Your task to perform on an android device: turn notification dots on Image 0: 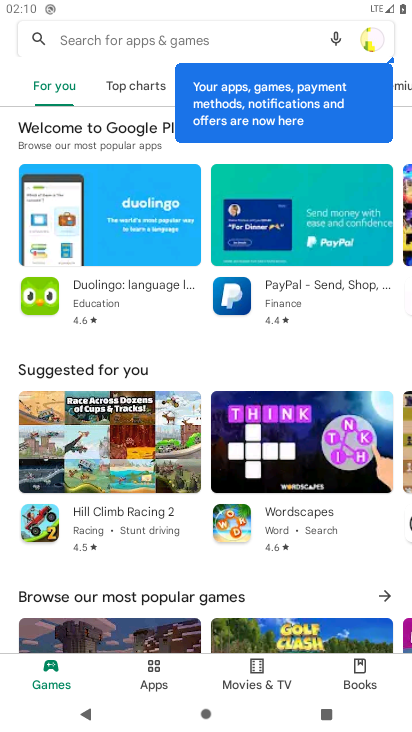
Step 0: press home button
Your task to perform on an android device: turn notification dots on Image 1: 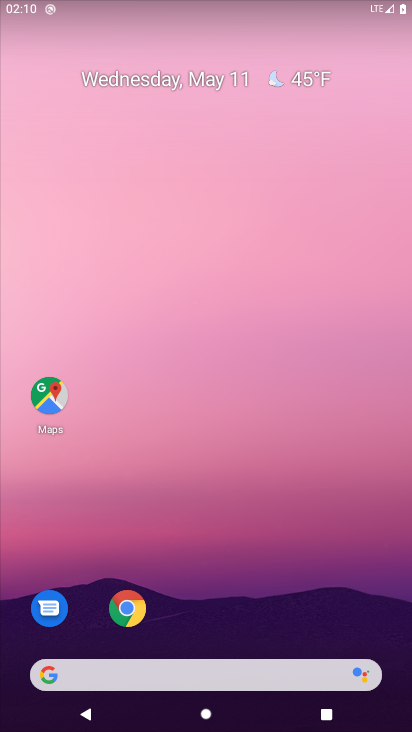
Step 1: drag from (211, 630) to (244, 5)
Your task to perform on an android device: turn notification dots on Image 2: 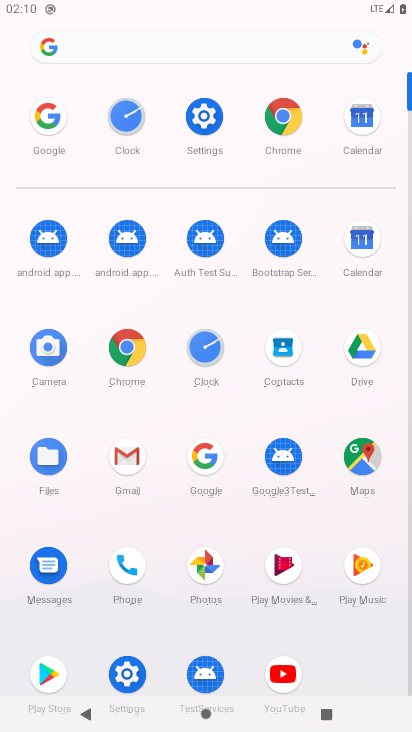
Step 2: click (208, 118)
Your task to perform on an android device: turn notification dots on Image 3: 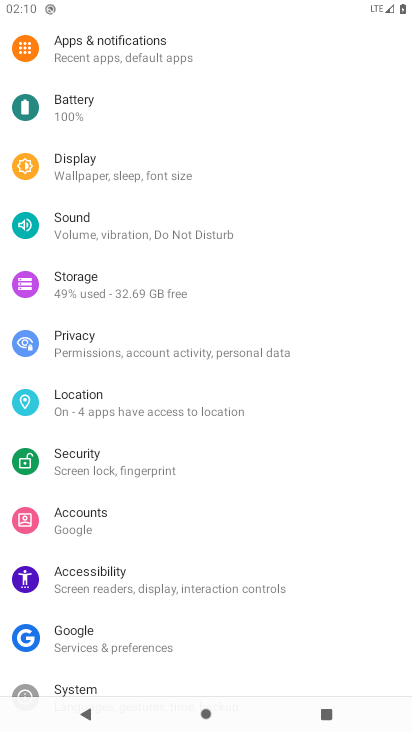
Step 3: click (131, 37)
Your task to perform on an android device: turn notification dots on Image 4: 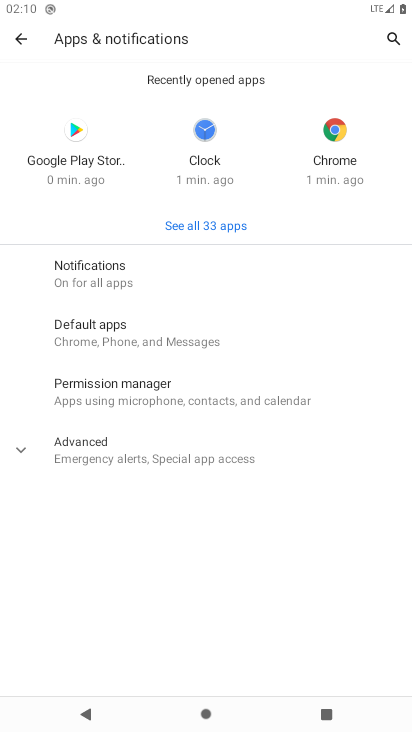
Step 4: click (53, 445)
Your task to perform on an android device: turn notification dots on Image 5: 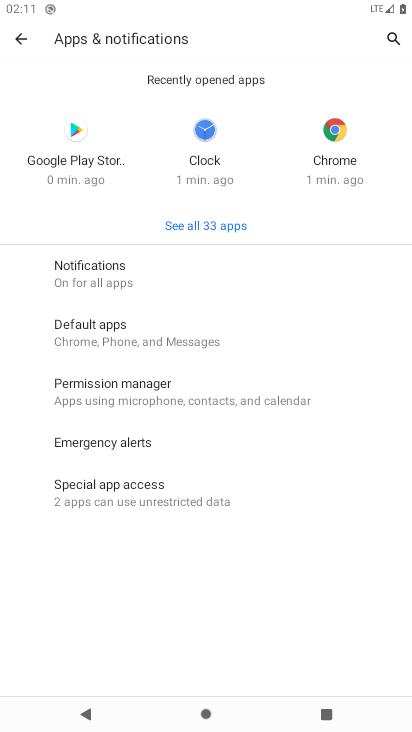
Step 5: click (140, 270)
Your task to perform on an android device: turn notification dots on Image 6: 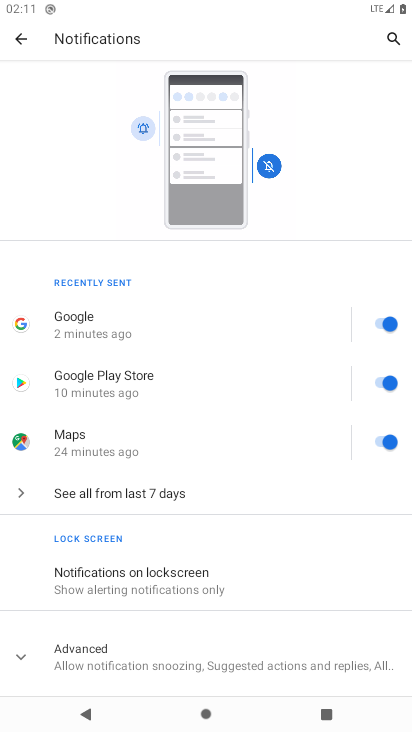
Step 6: click (116, 651)
Your task to perform on an android device: turn notification dots on Image 7: 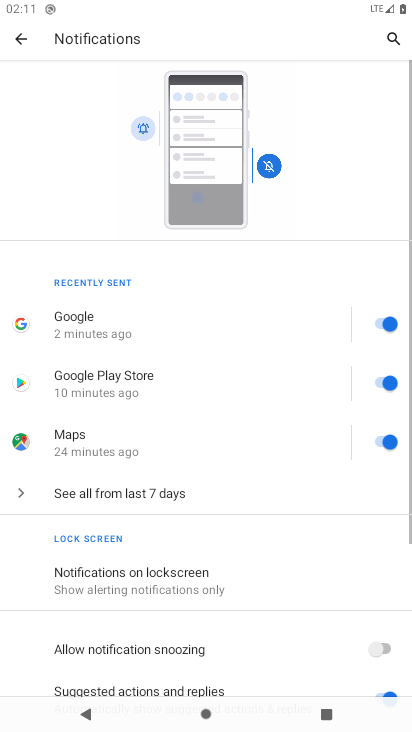
Step 7: task complete